Your task to perform on an android device: move an email to a new category in the gmail app Image 0: 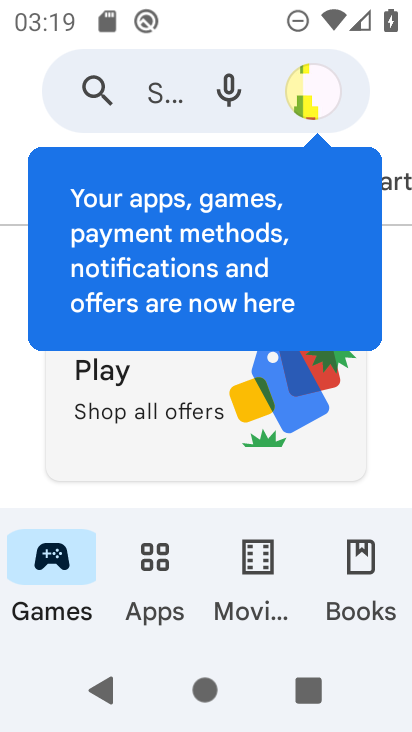
Step 0: press home button
Your task to perform on an android device: move an email to a new category in the gmail app Image 1: 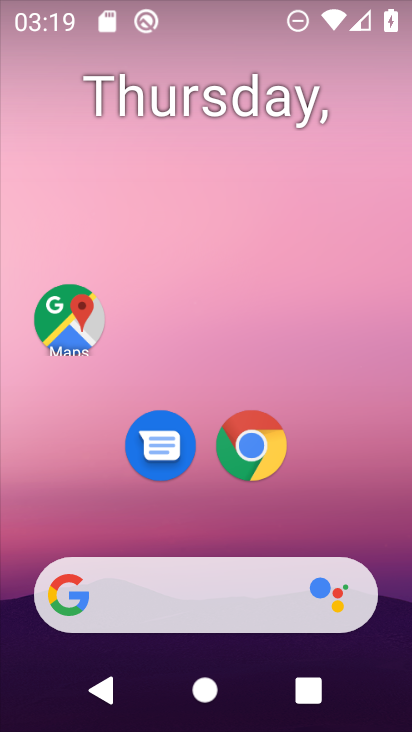
Step 1: drag from (361, 545) to (398, 14)
Your task to perform on an android device: move an email to a new category in the gmail app Image 2: 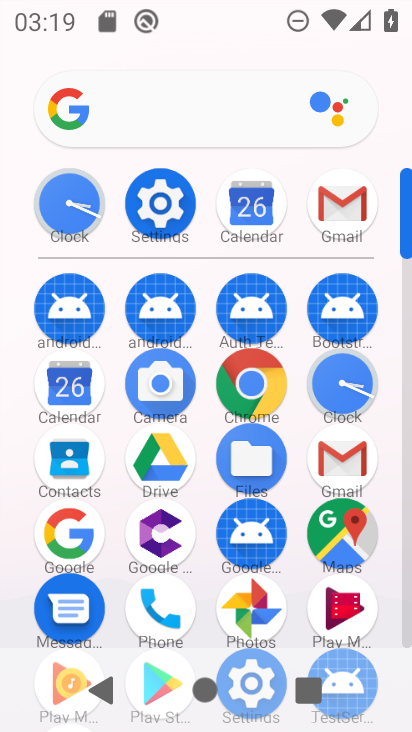
Step 2: click (330, 206)
Your task to perform on an android device: move an email to a new category in the gmail app Image 3: 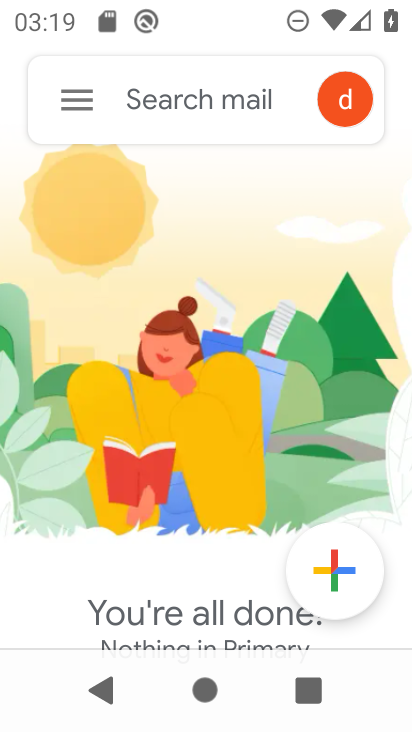
Step 3: click (79, 108)
Your task to perform on an android device: move an email to a new category in the gmail app Image 4: 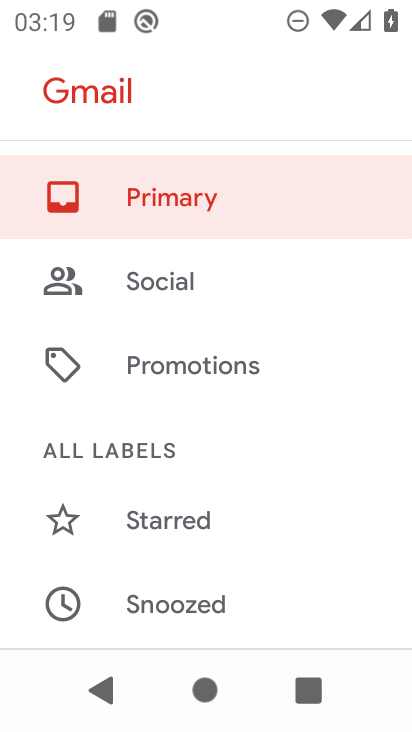
Step 4: drag from (209, 447) to (194, 135)
Your task to perform on an android device: move an email to a new category in the gmail app Image 5: 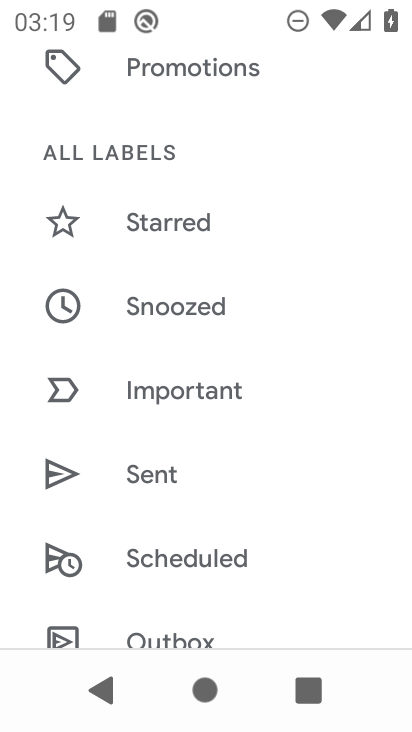
Step 5: drag from (198, 489) to (207, 147)
Your task to perform on an android device: move an email to a new category in the gmail app Image 6: 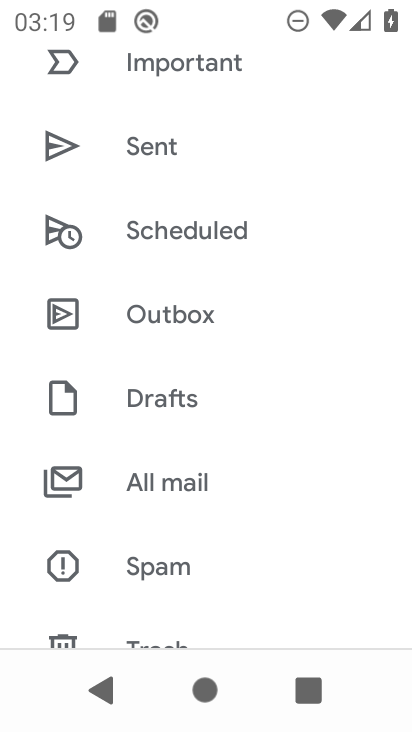
Step 6: click (181, 485)
Your task to perform on an android device: move an email to a new category in the gmail app Image 7: 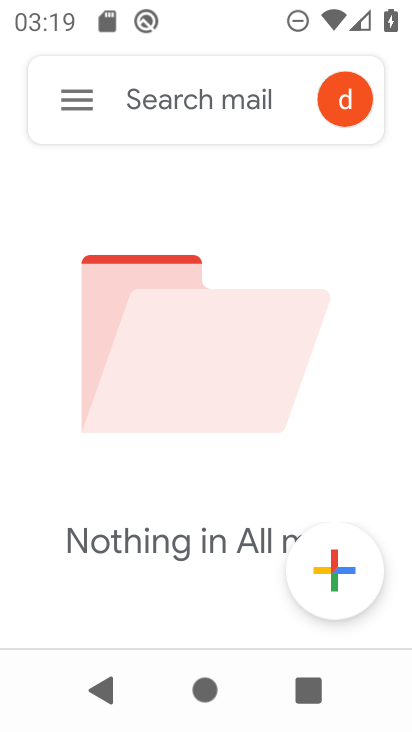
Step 7: task complete